Your task to perform on an android device: Go to battery settings Image 0: 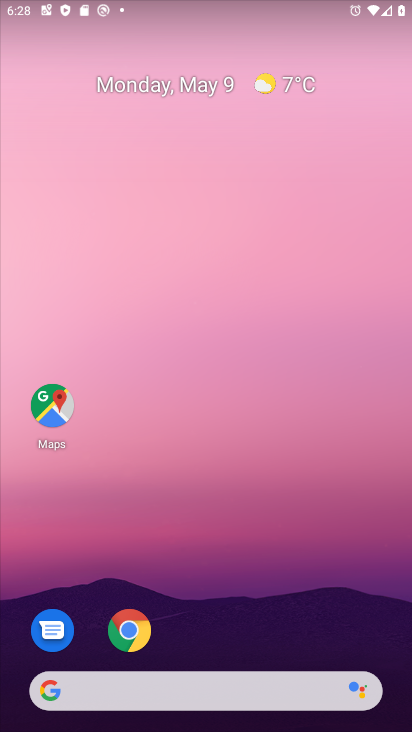
Step 0: drag from (276, 621) to (236, 104)
Your task to perform on an android device: Go to battery settings Image 1: 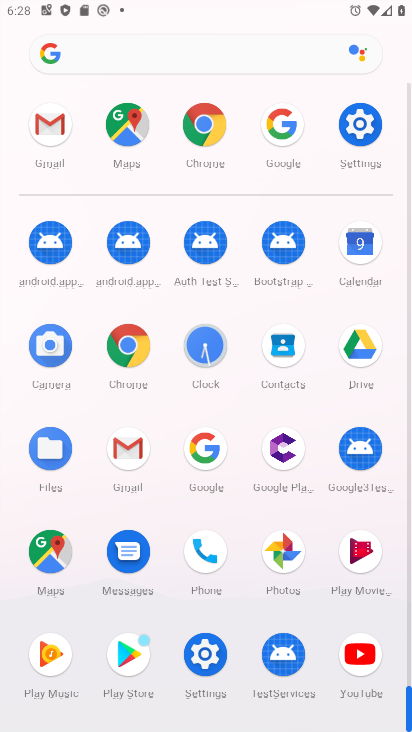
Step 1: click (360, 155)
Your task to perform on an android device: Go to battery settings Image 2: 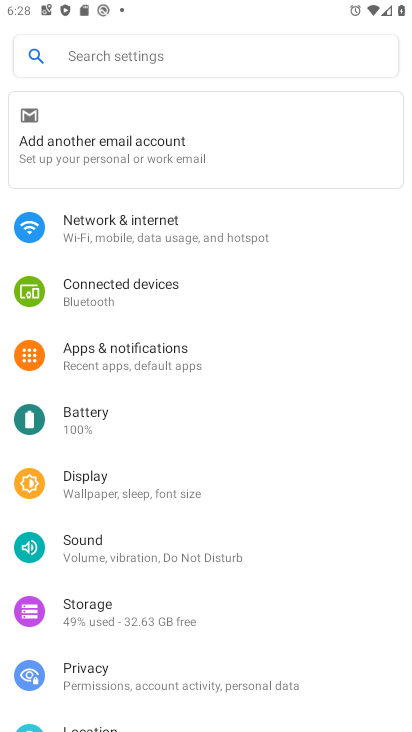
Step 2: drag from (115, 640) to (130, 260)
Your task to perform on an android device: Go to battery settings Image 3: 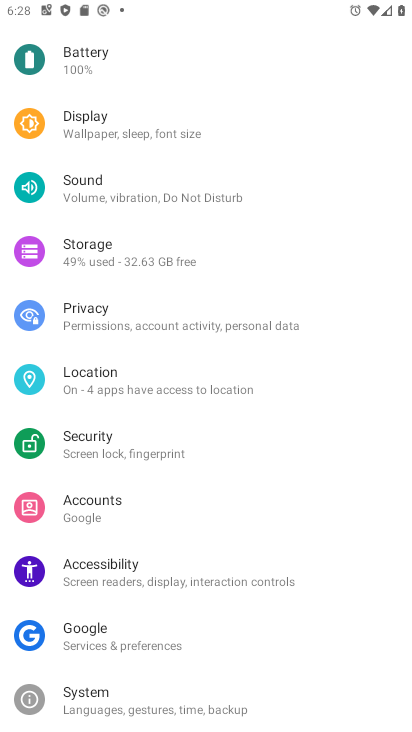
Step 3: click (80, 65)
Your task to perform on an android device: Go to battery settings Image 4: 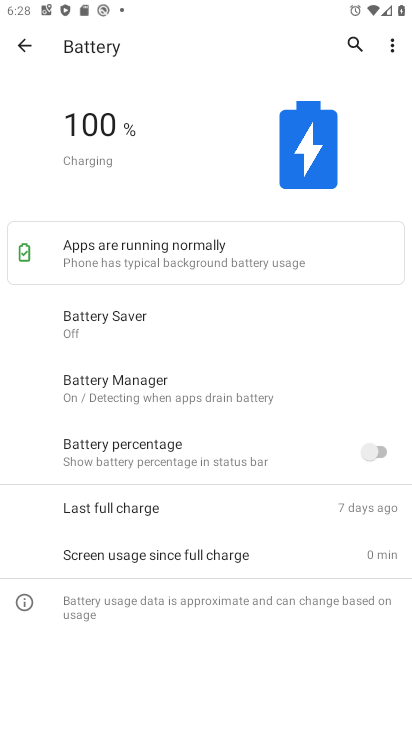
Step 4: task complete